Your task to perform on an android device: change timer sound Image 0: 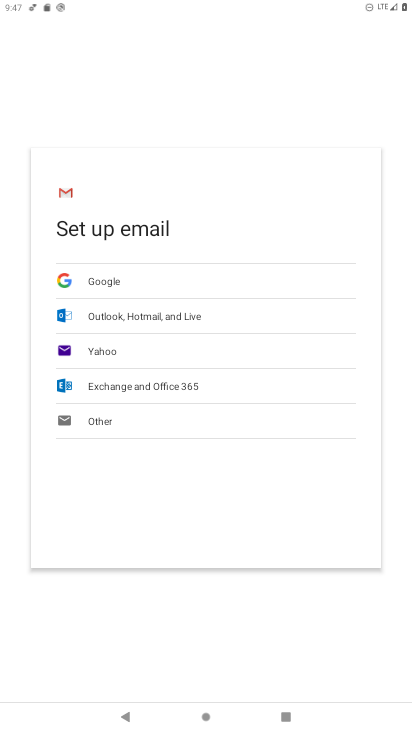
Step 0: press home button
Your task to perform on an android device: change timer sound Image 1: 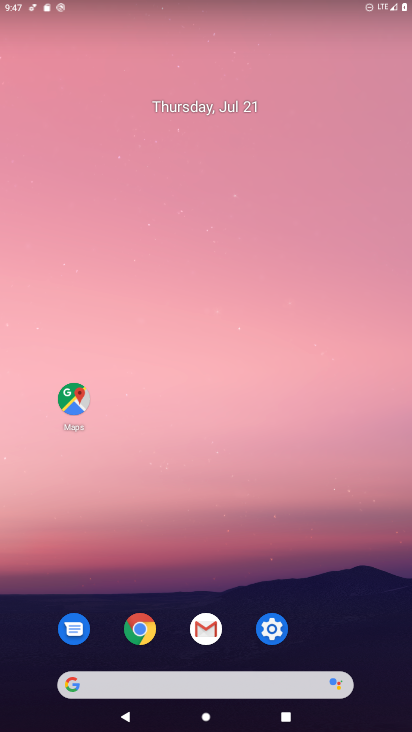
Step 1: drag from (217, 708) to (263, 138)
Your task to perform on an android device: change timer sound Image 2: 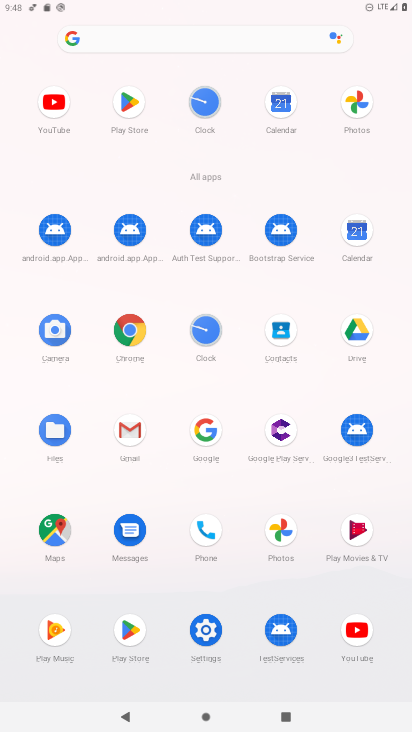
Step 2: click (204, 338)
Your task to perform on an android device: change timer sound Image 3: 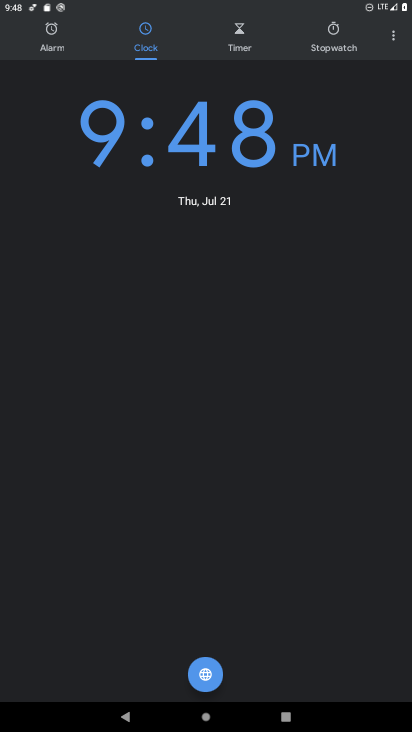
Step 3: click (388, 44)
Your task to perform on an android device: change timer sound Image 4: 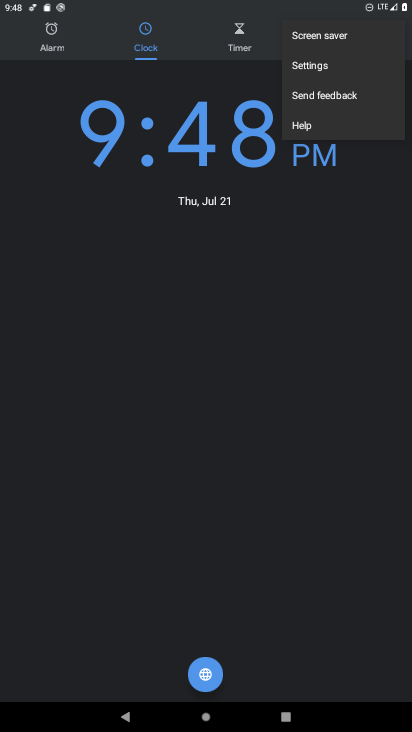
Step 4: click (328, 76)
Your task to perform on an android device: change timer sound Image 5: 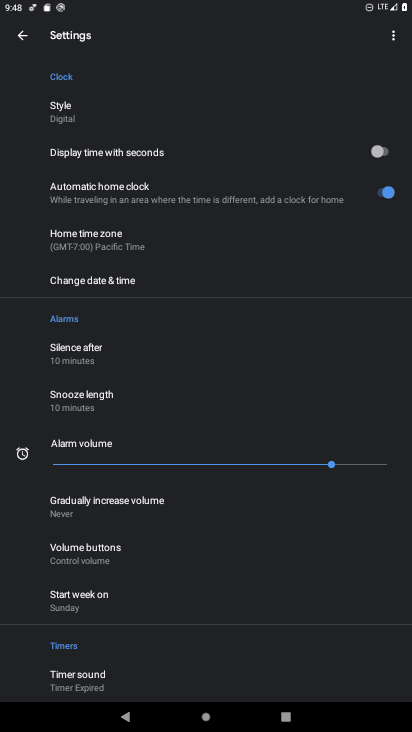
Step 5: click (121, 673)
Your task to perform on an android device: change timer sound Image 6: 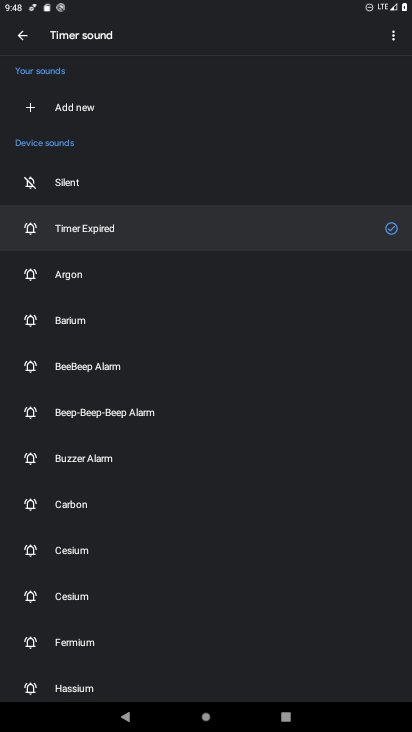
Step 6: click (128, 374)
Your task to perform on an android device: change timer sound Image 7: 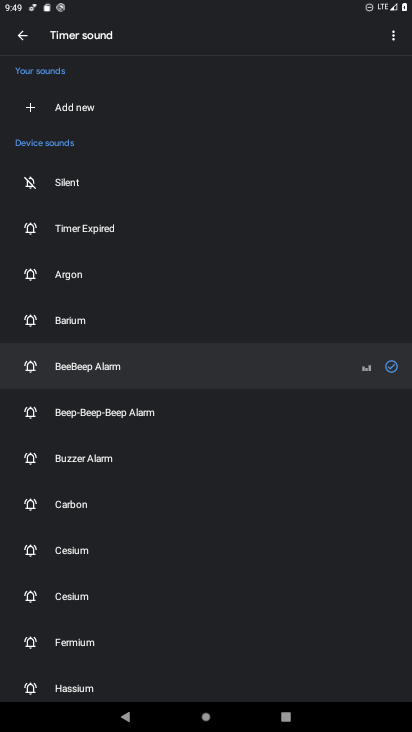
Step 7: task complete